Your task to perform on an android device: Search for the best rated 150-piece drill bit set on Aliexpress. Image 0: 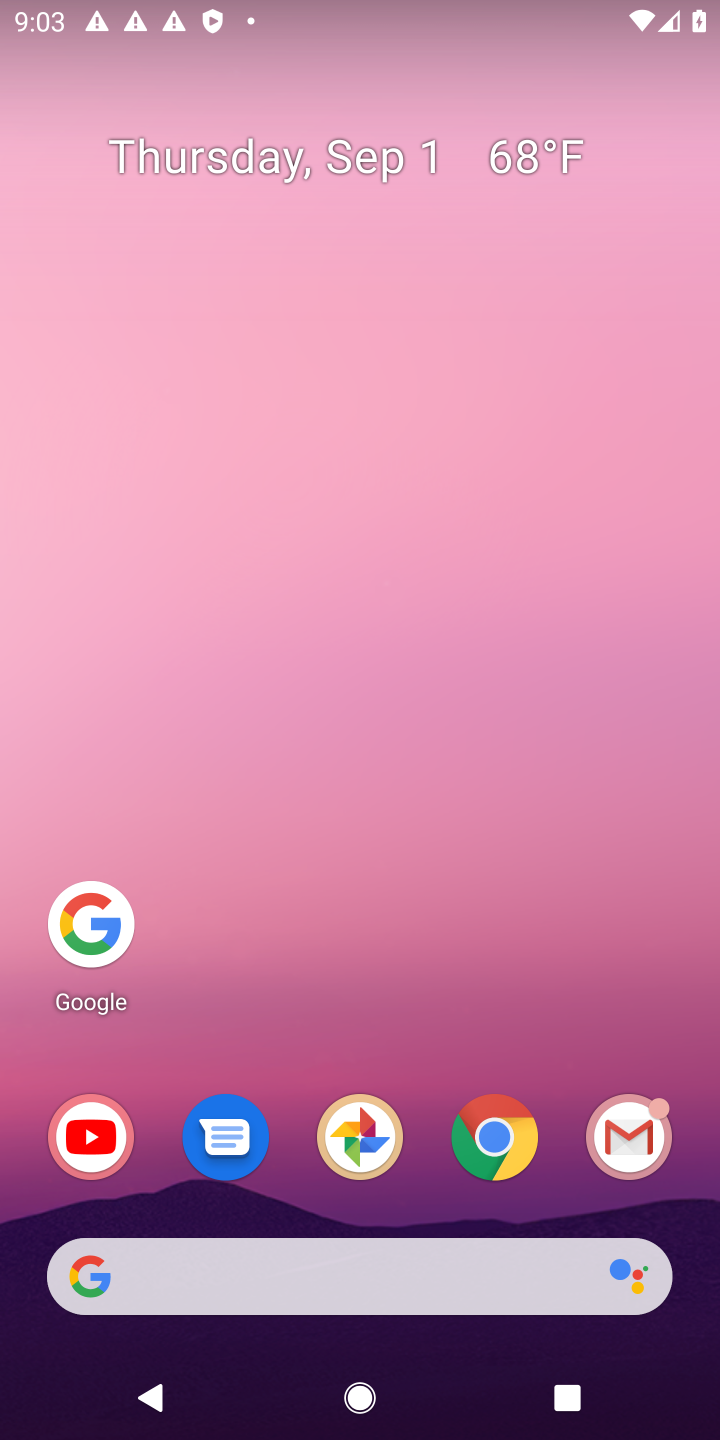
Step 0: click (248, 1270)
Your task to perform on an android device: Search for the best rated 150-piece drill bit set on Aliexpress. Image 1: 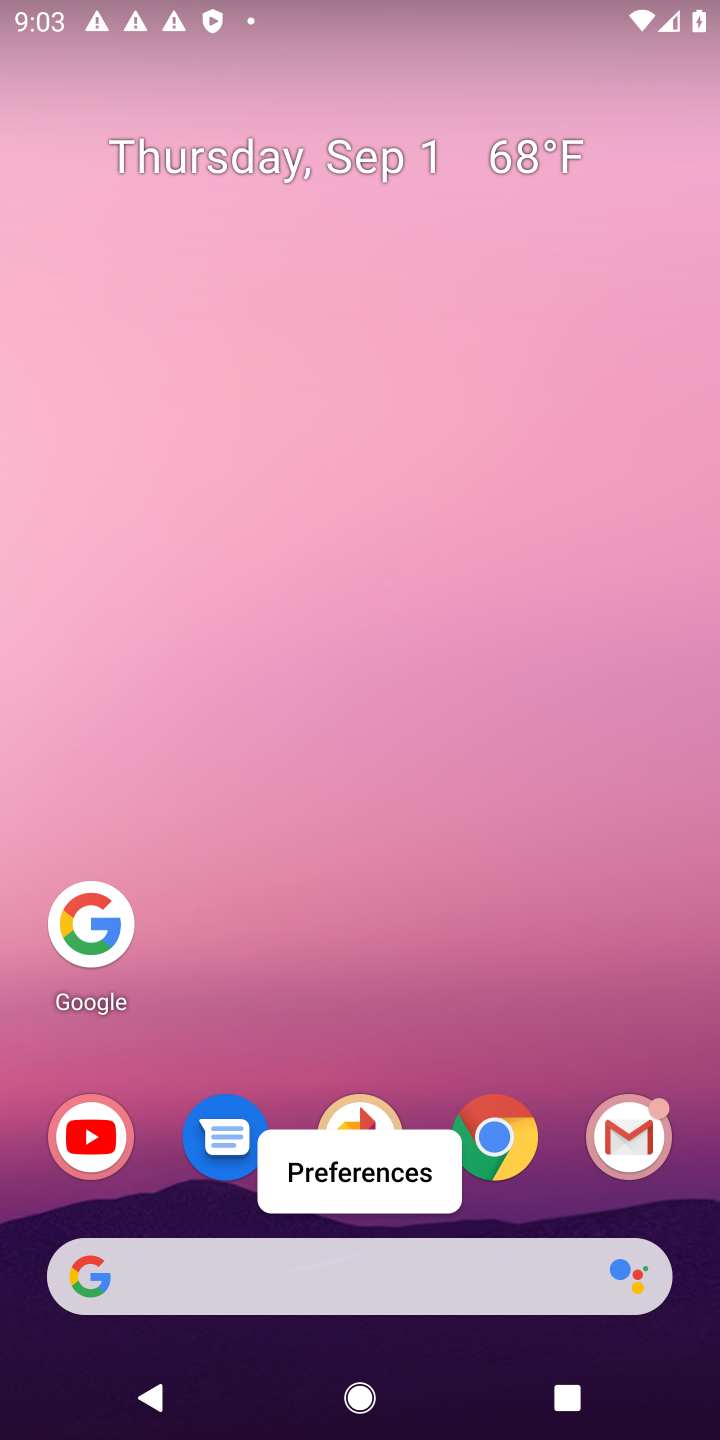
Step 1: click (106, 1262)
Your task to perform on an android device: Search for the best rated 150-piece drill bit set on Aliexpress. Image 2: 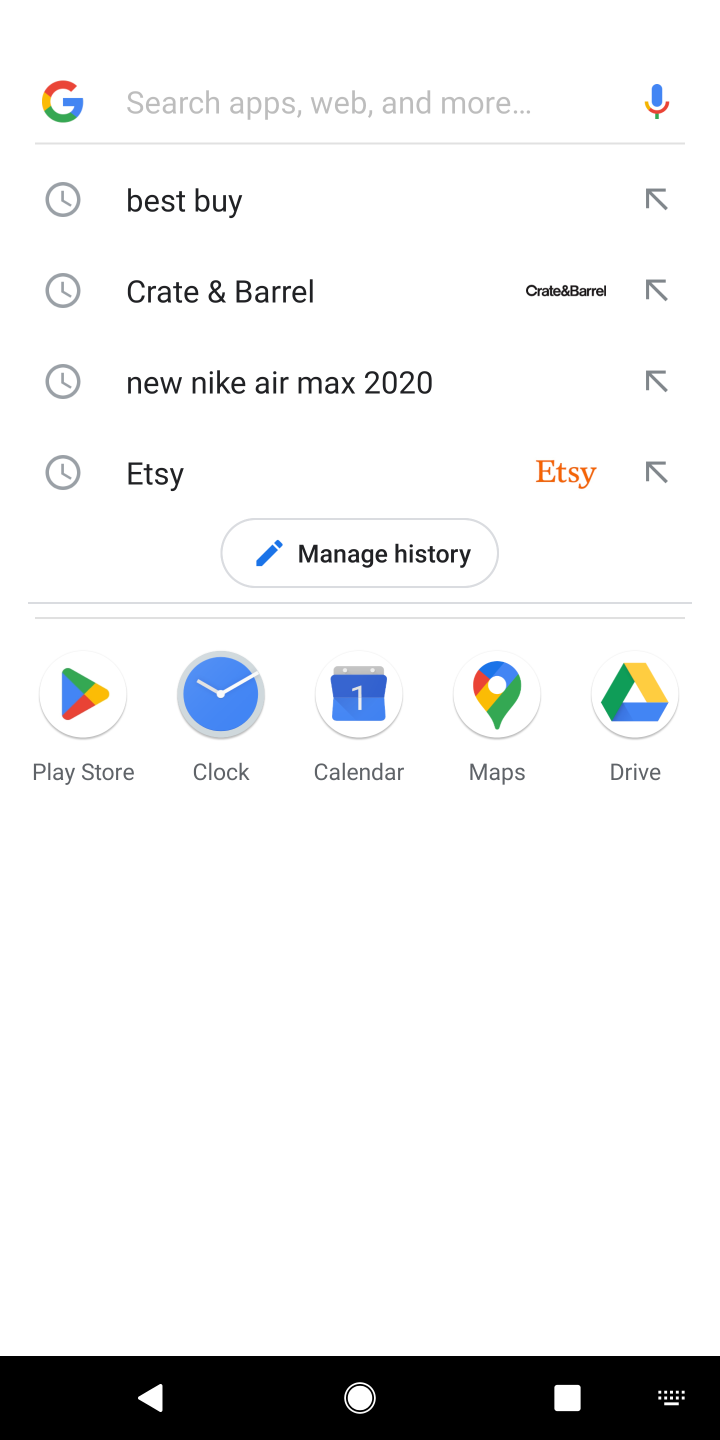
Step 2: type "aliexpress"
Your task to perform on an android device: Search for the best rated 150-piece drill bit set on Aliexpress. Image 3: 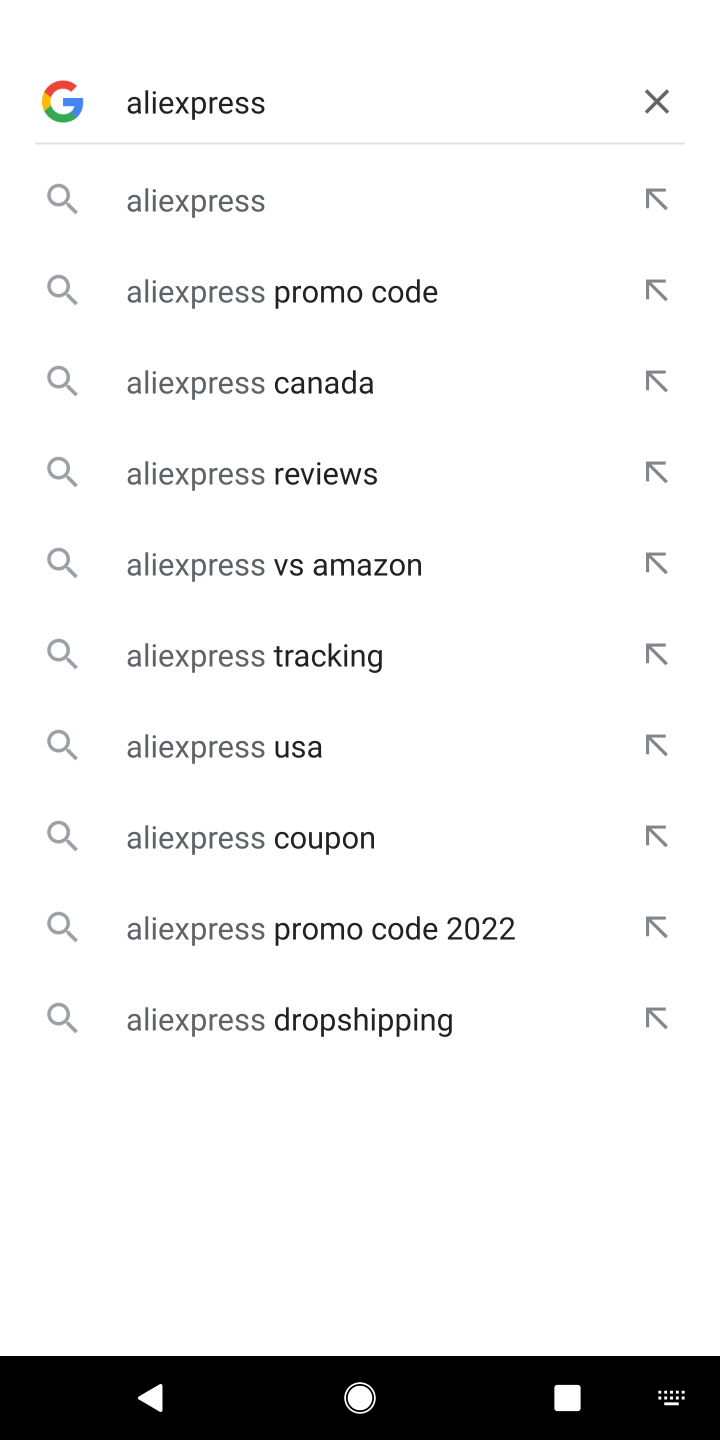
Step 3: click (170, 208)
Your task to perform on an android device: Search for the best rated 150-piece drill bit set on Aliexpress. Image 4: 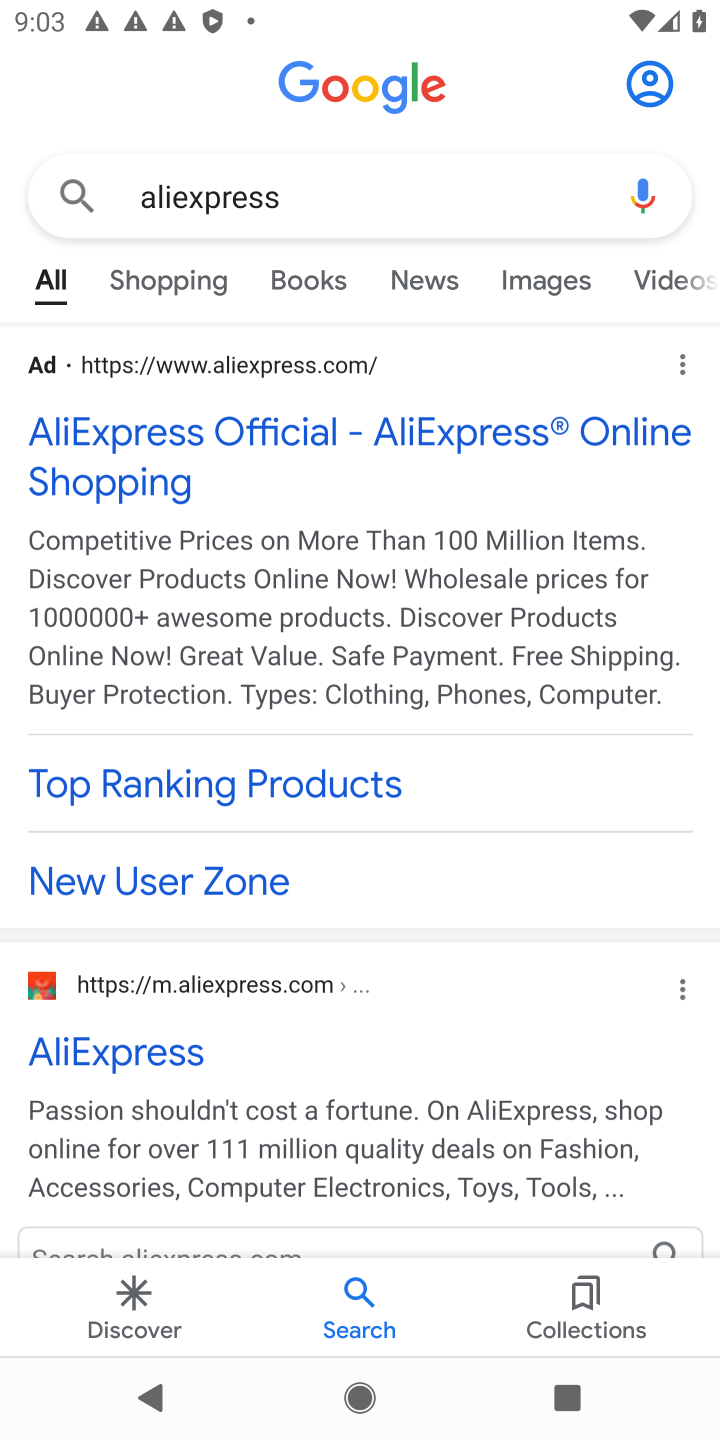
Step 4: click (119, 351)
Your task to perform on an android device: Search for the best rated 150-piece drill bit set on Aliexpress. Image 5: 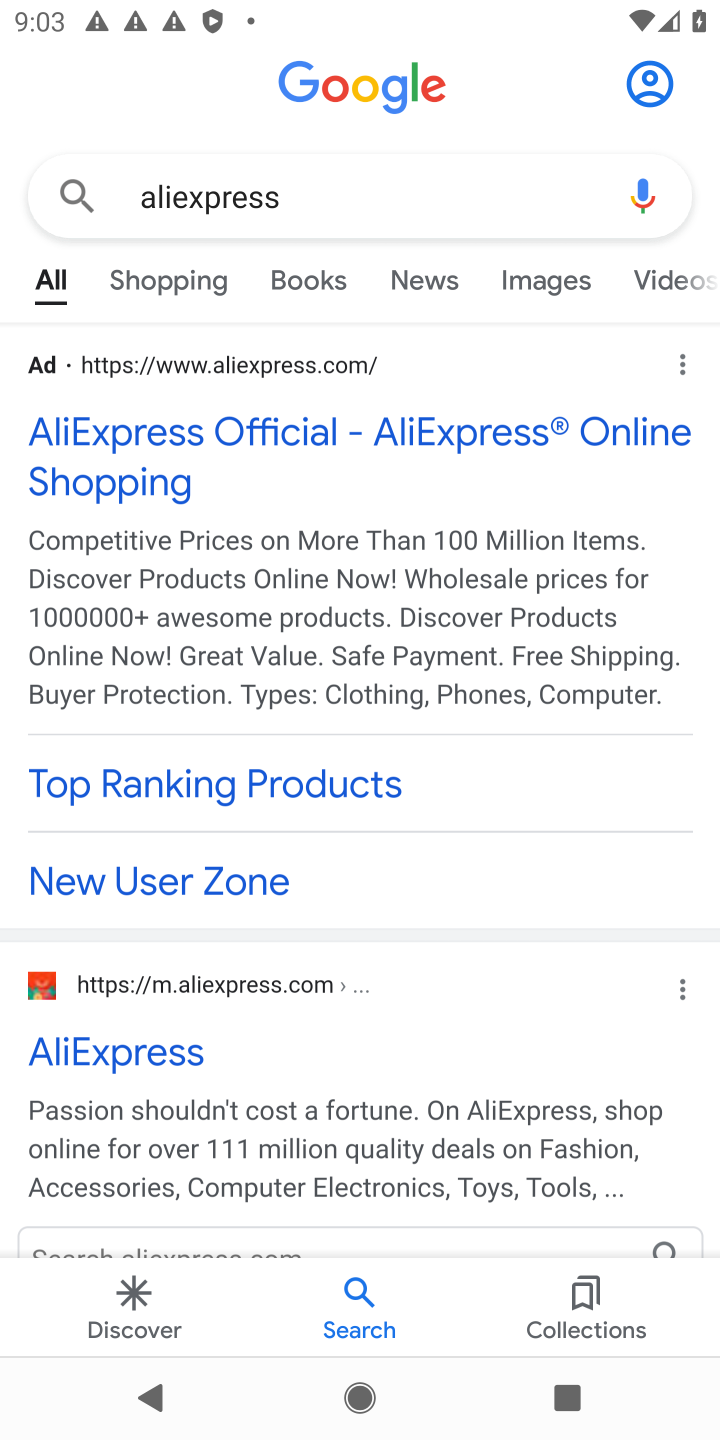
Step 5: click (118, 444)
Your task to perform on an android device: Search for the best rated 150-piece drill bit set on Aliexpress. Image 6: 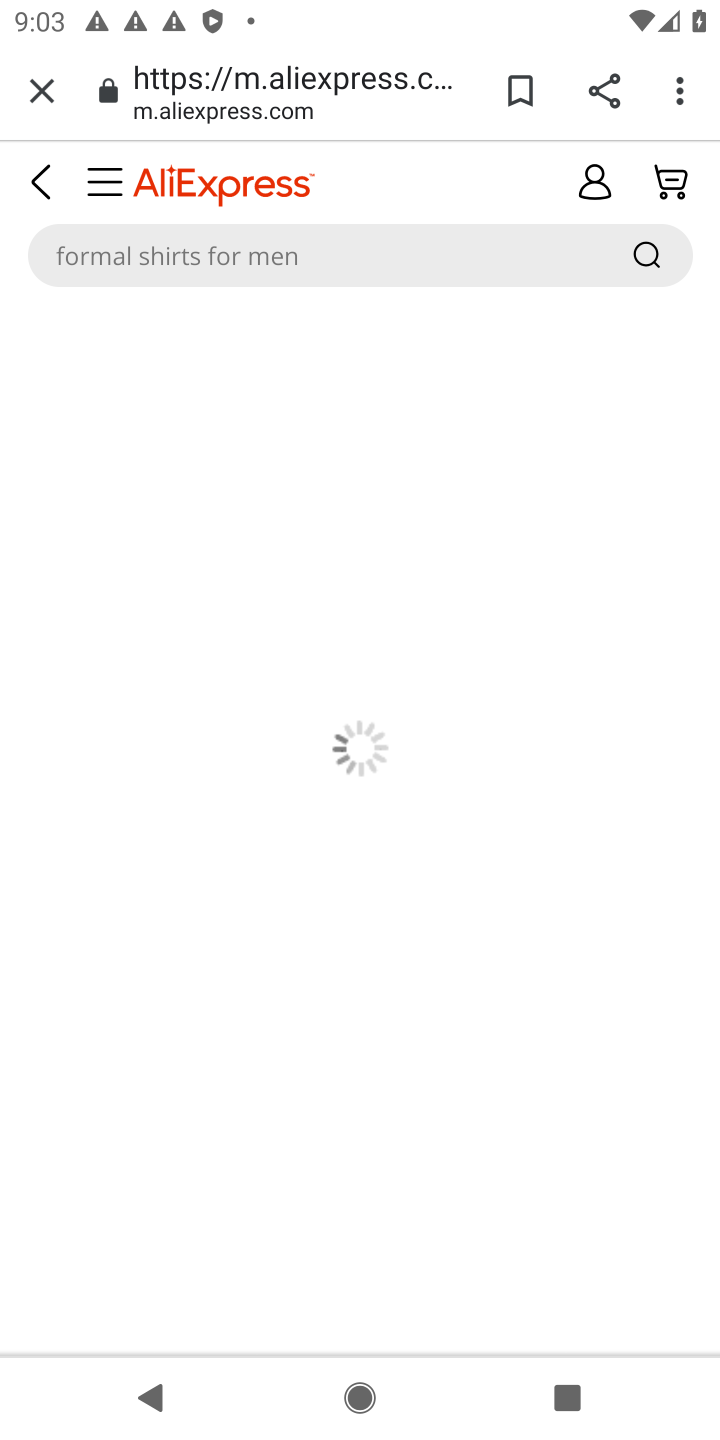
Step 6: click (286, 251)
Your task to perform on an android device: Search for the best rated 150-piece drill bit set on Aliexpress. Image 7: 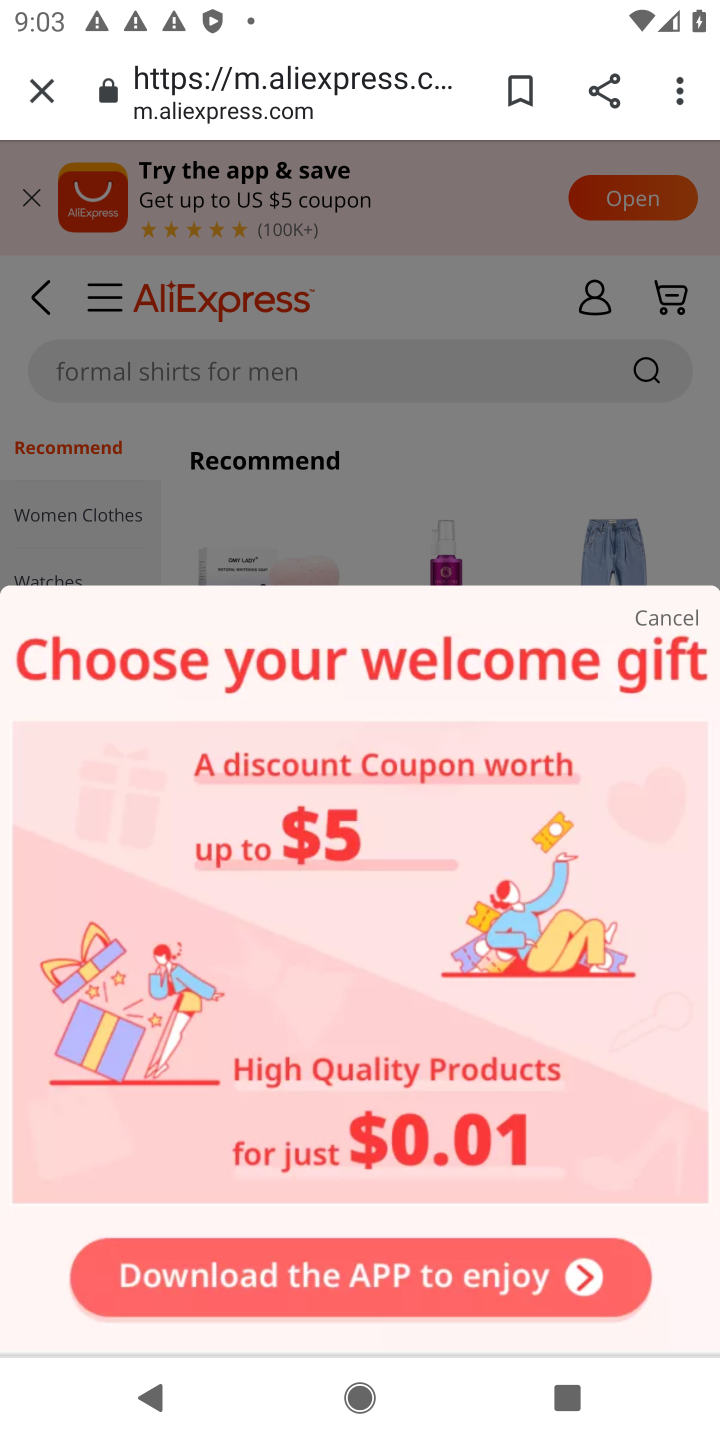
Step 7: click (282, 339)
Your task to perform on an android device: Search for the best rated 150-piece drill bit set on Aliexpress. Image 8: 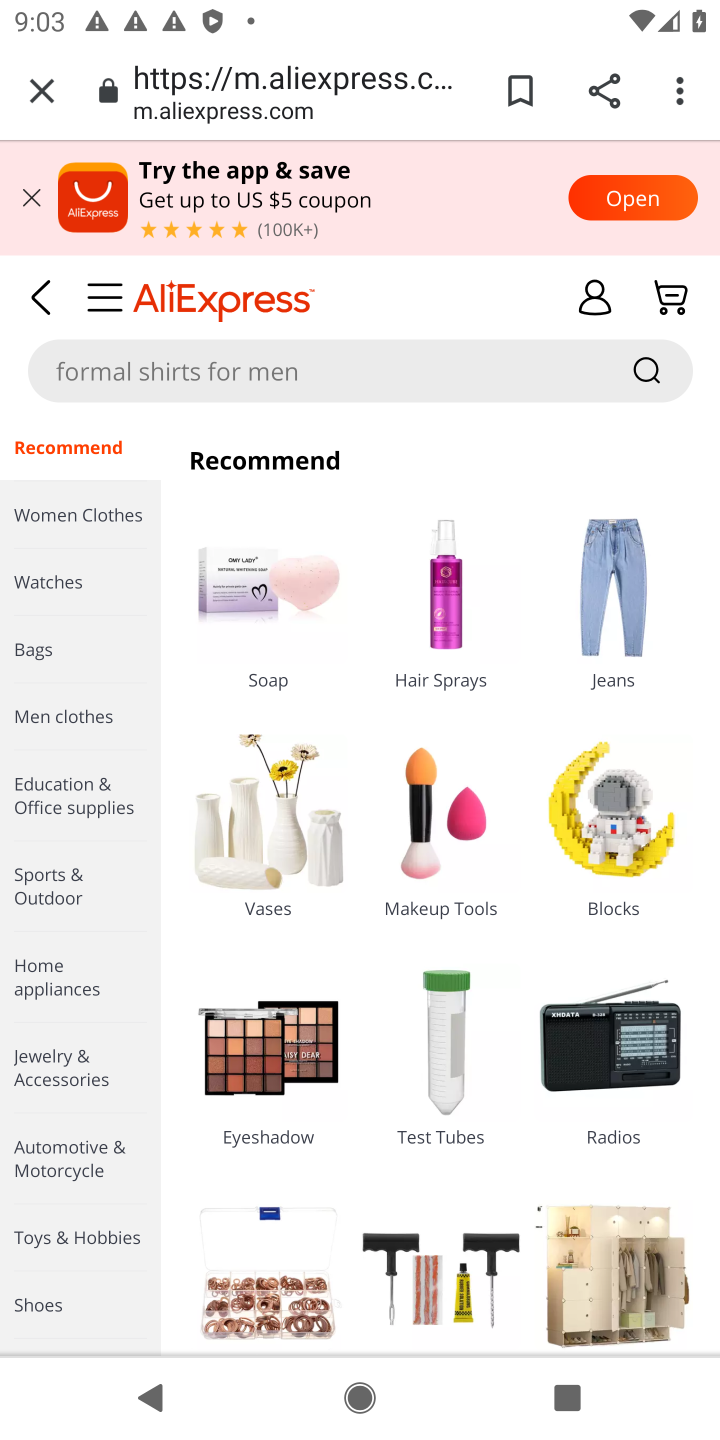
Step 8: click (213, 362)
Your task to perform on an android device: Search for the best rated 150-piece drill bit set on Aliexpress. Image 9: 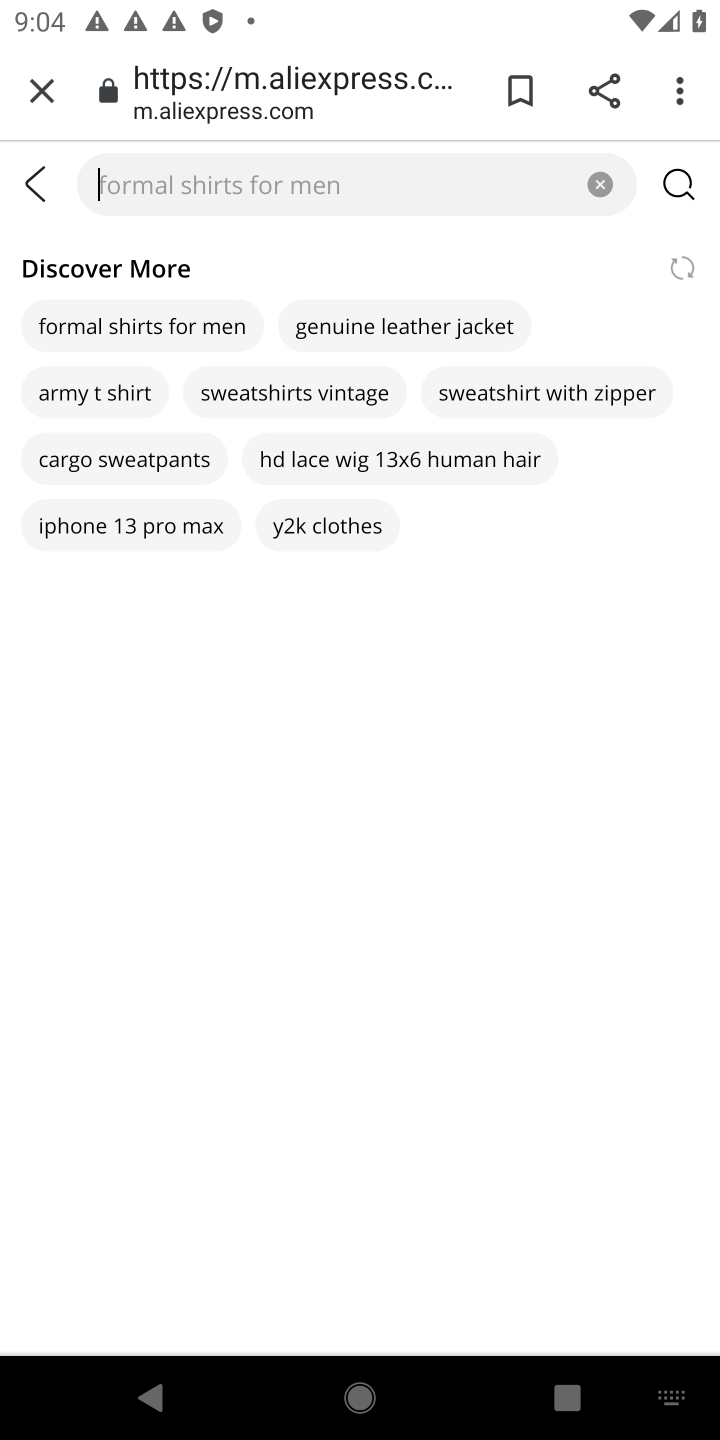
Step 9: type "best rated 150-piece drill bit set"
Your task to perform on an android device: Search for the best rated 150-piece drill bit set on Aliexpress. Image 10: 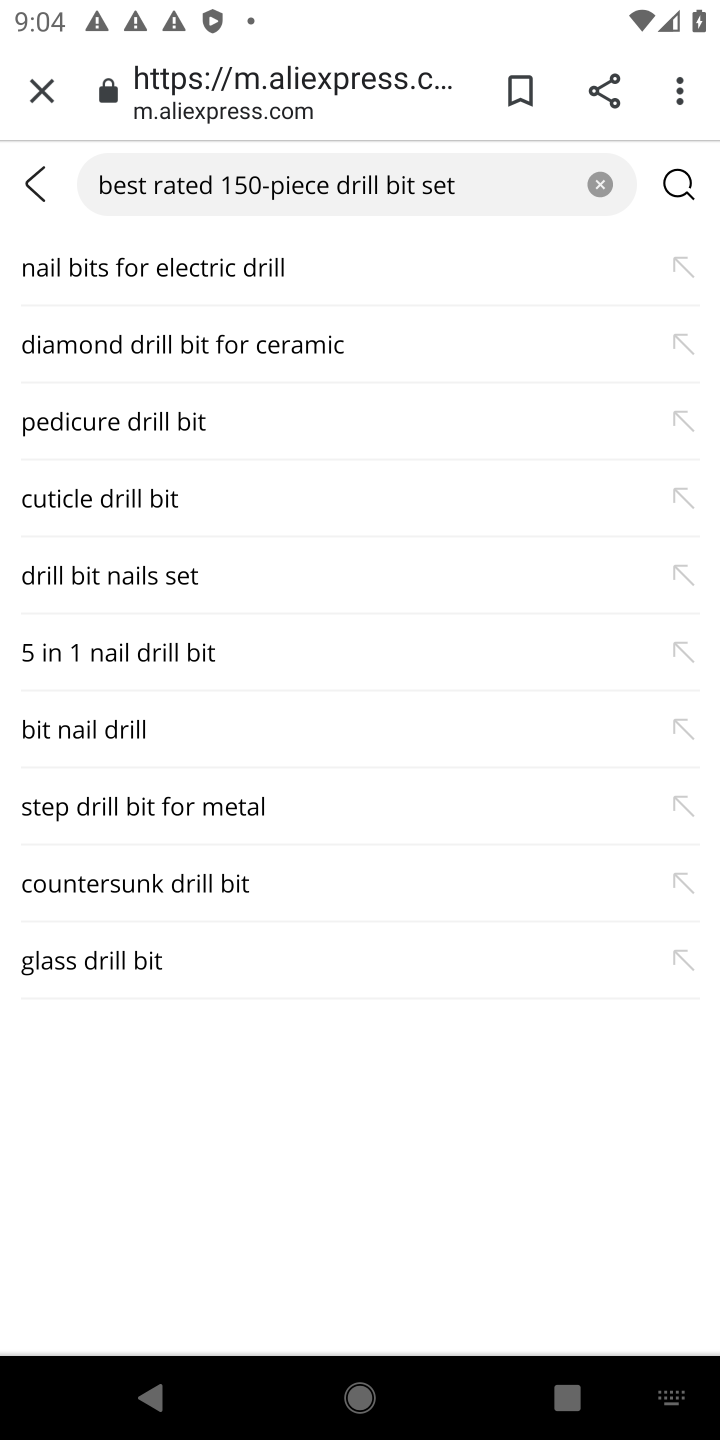
Step 10: click (676, 175)
Your task to perform on an android device: Search for the best rated 150-piece drill bit set on Aliexpress. Image 11: 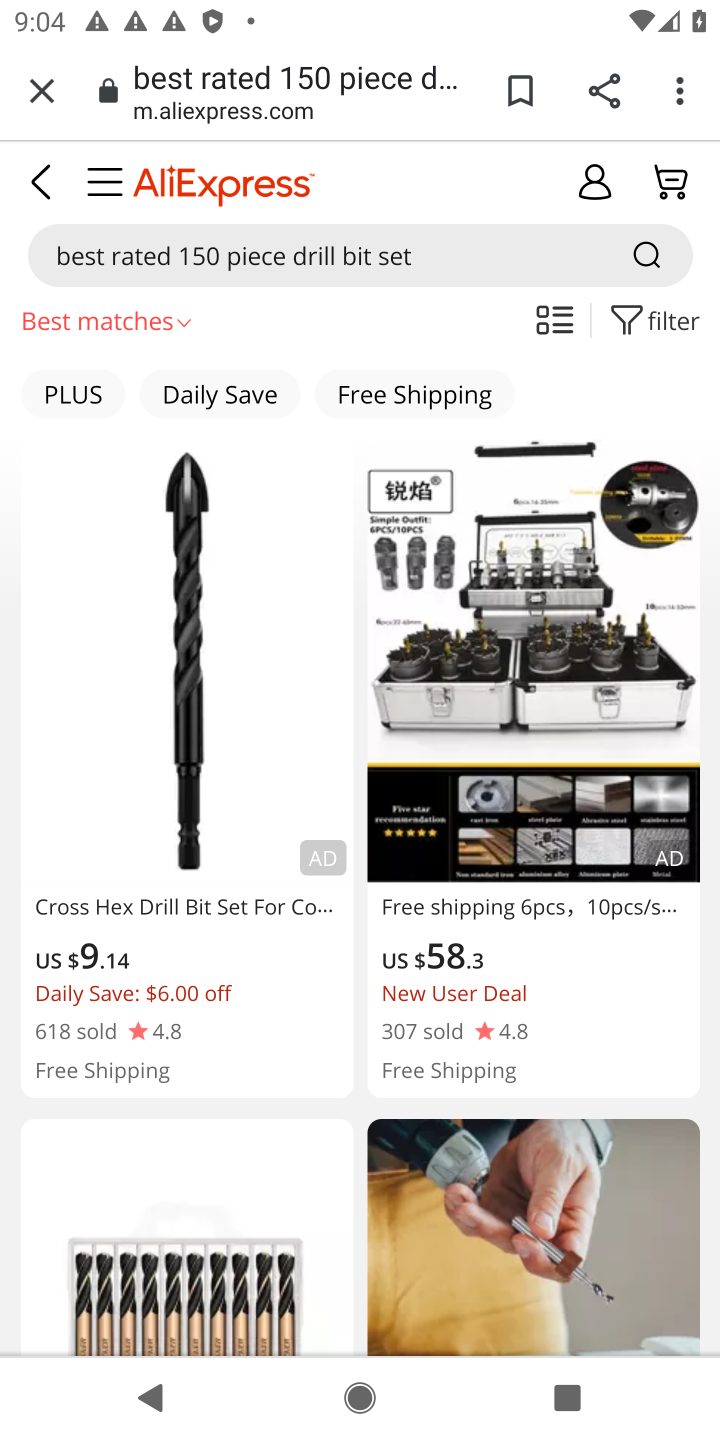
Step 11: task complete